Your task to perform on an android device: Do I have any events this weekend? Image 0: 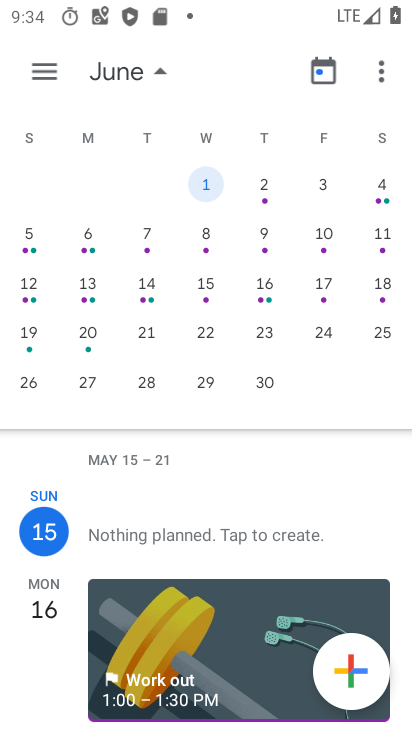
Step 0: press home button
Your task to perform on an android device: Do I have any events this weekend? Image 1: 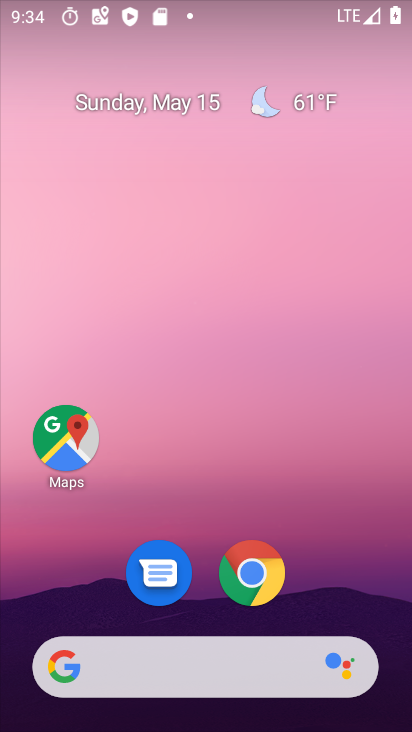
Step 1: click (165, 665)
Your task to perform on an android device: Do I have any events this weekend? Image 2: 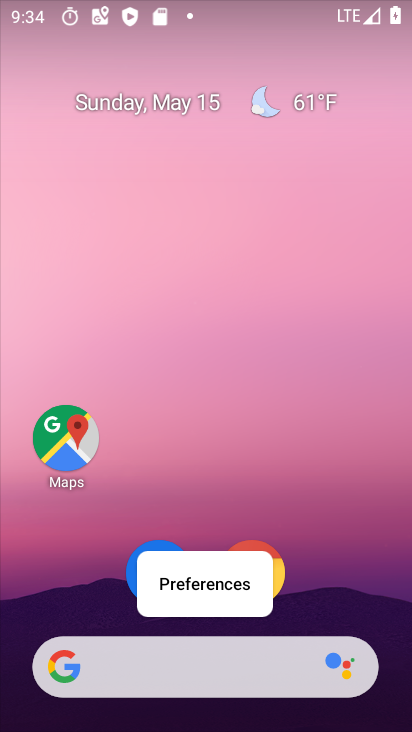
Step 2: click (136, 670)
Your task to perform on an android device: Do I have any events this weekend? Image 3: 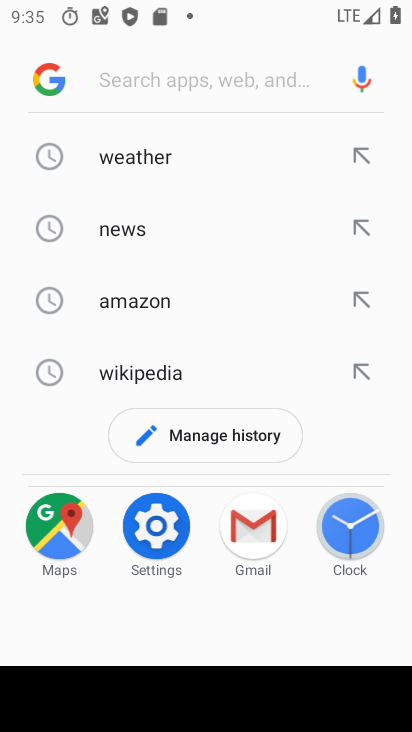
Step 3: click (186, 159)
Your task to perform on an android device: Do I have any events this weekend? Image 4: 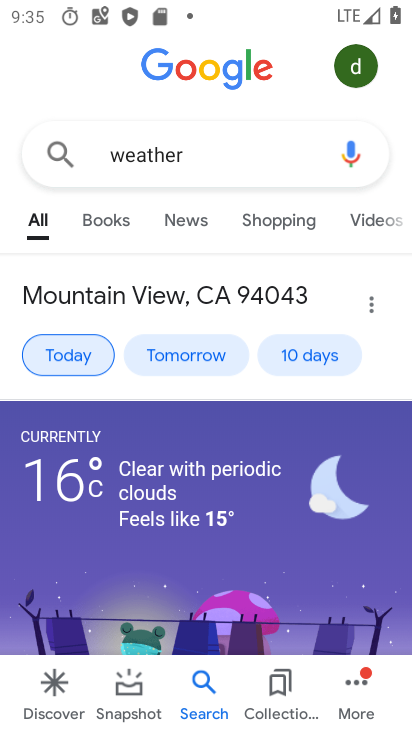
Step 4: task complete